Your task to perform on an android device: Open maps Image 0: 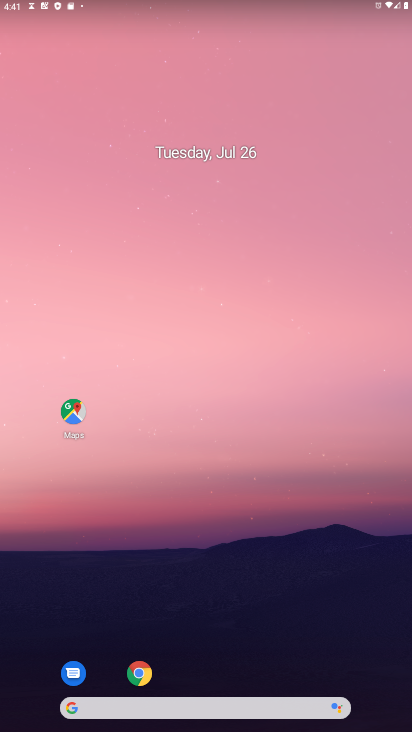
Step 0: click (69, 411)
Your task to perform on an android device: Open maps Image 1: 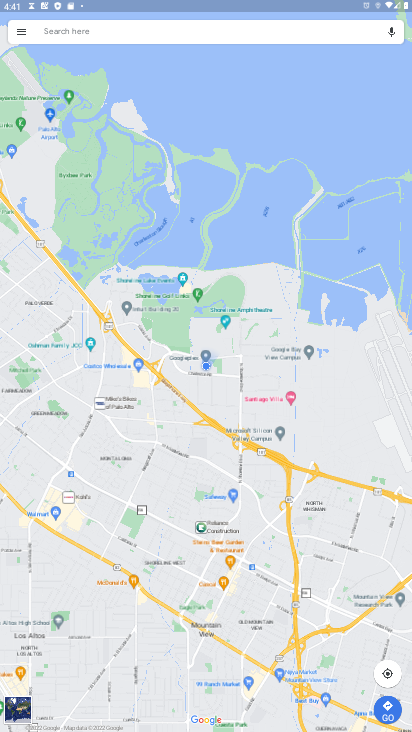
Step 1: task complete